Your task to perform on an android device: star an email in the gmail app Image 0: 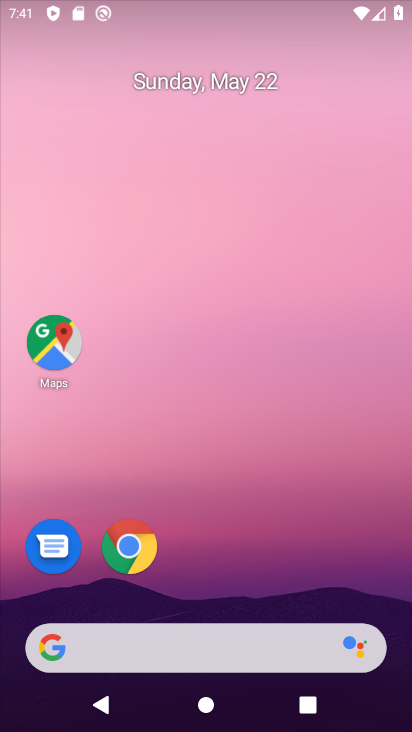
Step 0: press home button
Your task to perform on an android device: star an email in the gmail app Image 1: 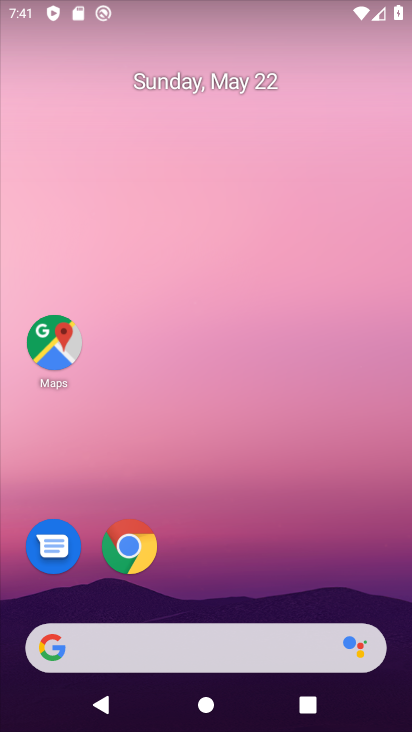
Step 1: drag from (182, 644) to (296, 57)
Your task to perform on an android device: star an email in the gmail app Image 2: 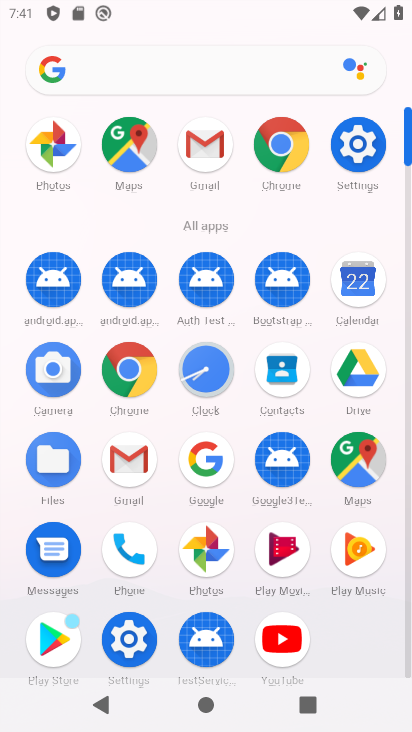
Step 2: click (208, 154)
Your task to perform on an android device: star an email in the gmail app Image 3: 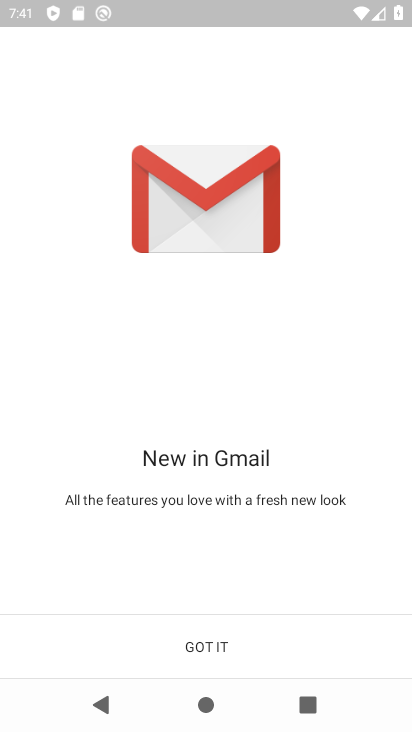
Step 3: click (215, 643)
Your task to perform on an android device: star an email in the gmail app Image 4: 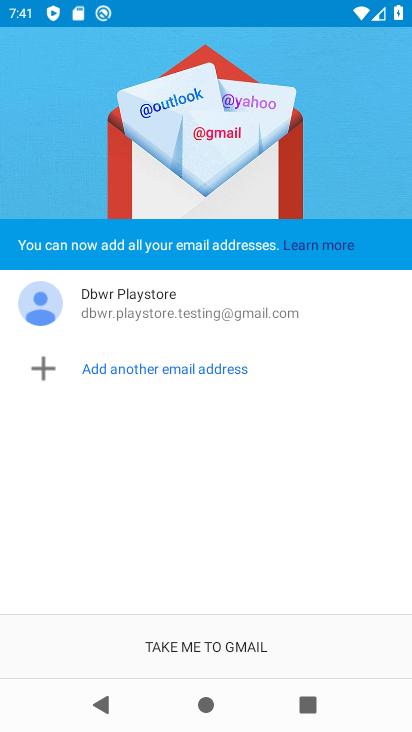
Step 4: click (215, 643)
Your task to perform on an android device: star an email in the gmail app Image 5: 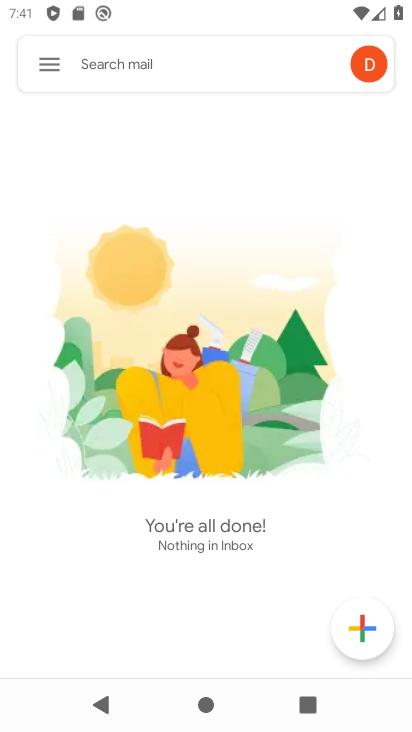
Step 5: task complete